Your task to perform on an android device: Go to Amazon Image 0: 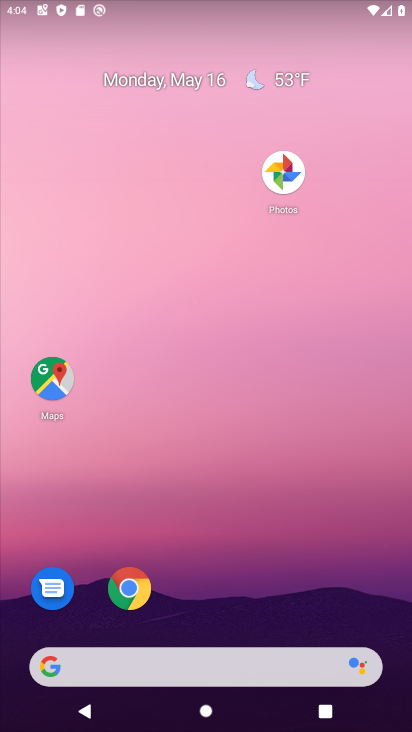
Step 0: click (131, 586)
Your task to perform on an android device: Go to Amazon Image 1: 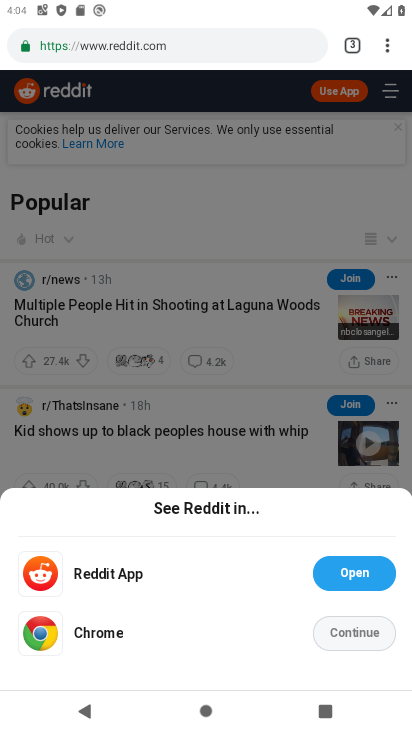
Step 1: click (353, 55)
Your task to perform on an android device: Go to Amazon Image 2: 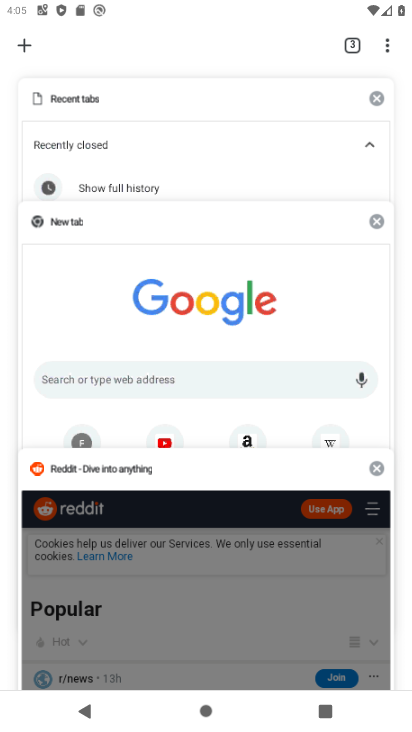
Step 2: click (15, 45)
Your task to perform on an android device: Go to Amazon Image 3: 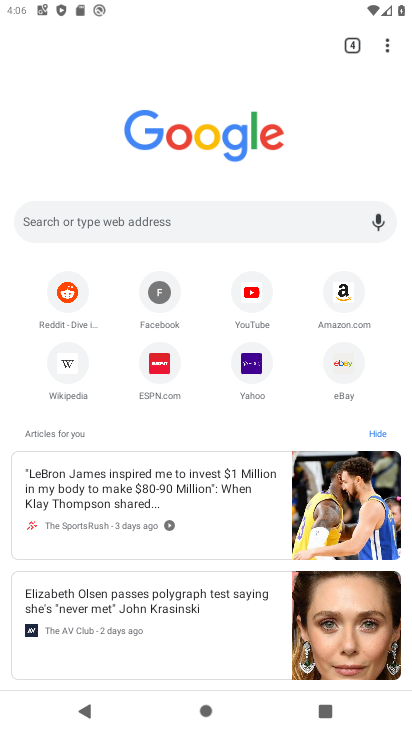
Step 3: click (353, 296)
Your task to perform on an android device: Go to Amazon Image 4: 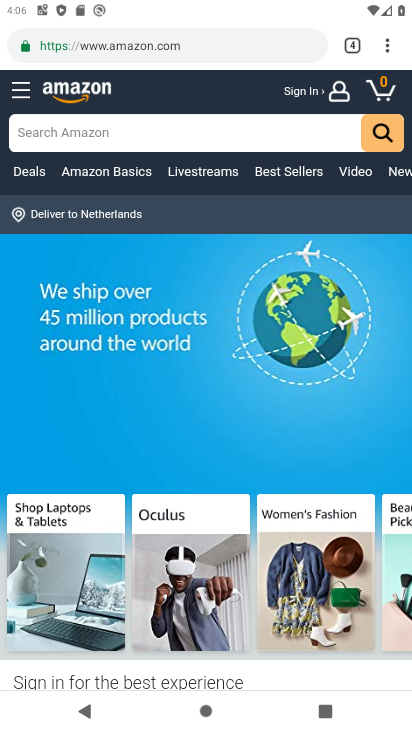
Step 4: task complete